Your task to perform on an android device: Open calendar and show me the fourth week of next month Image 0: 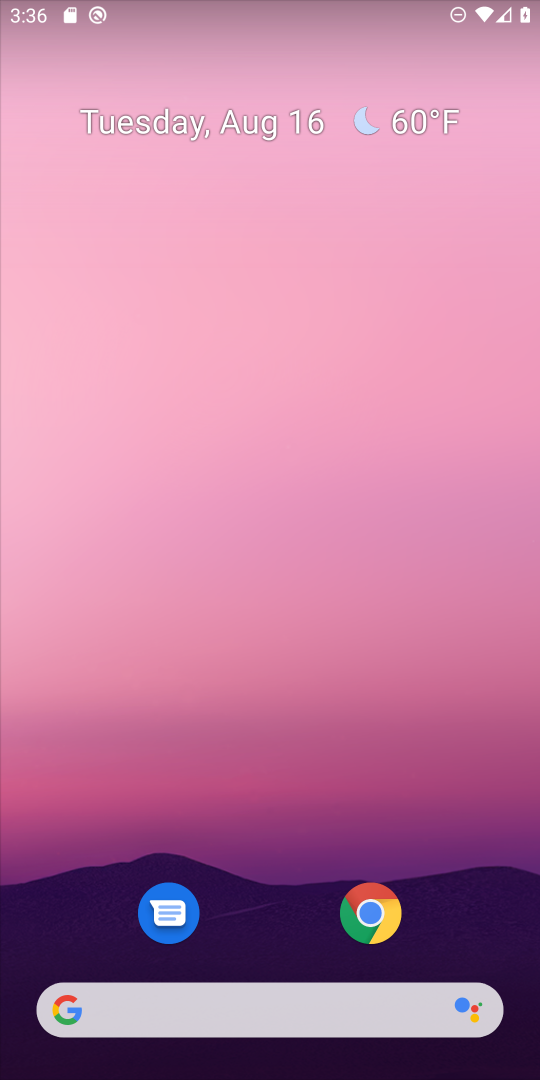
Step 0: drag from (466, 736) to (426, 186)
Your task to perform on an android device: Open calendar and show me the fourth week of next month Image 1: 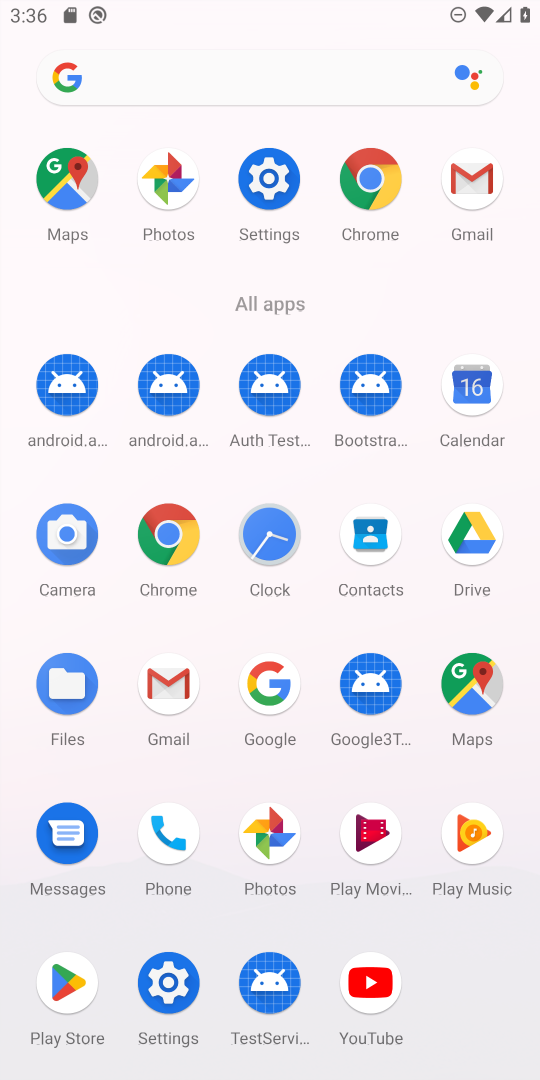
Step 1: click (475, 389)
Your task to perform on an android device: Open calendar and show me the fourth week of next month Image 2: 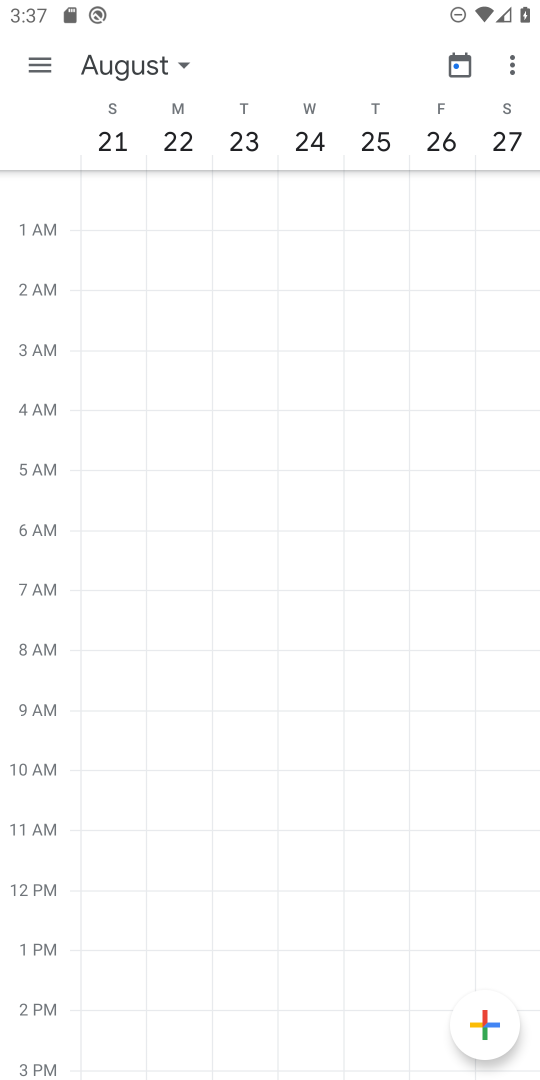
Step 2: click (41, 60)
Your task to perform on an android device: Open calendar and show me the fourth week of next month Image 3: 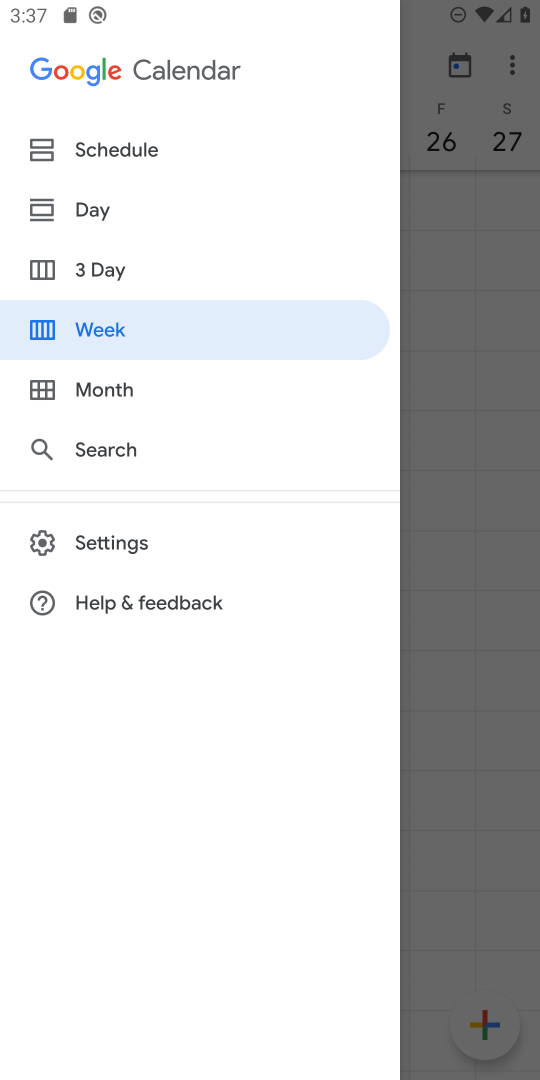
Step 3: click (141, 344)
Your task to perform on an android device: Open calendar and show me the fourth week of next month Image 4: 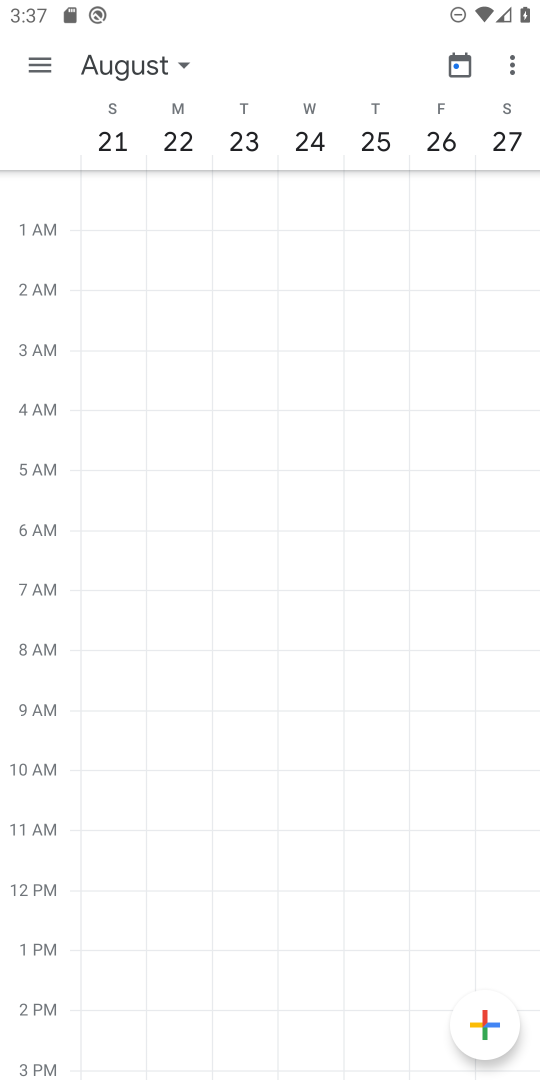
Step 4: click (187, 68)
Your task to perform on an android device: Open calendar and show me the fourth week of next month Image 5: 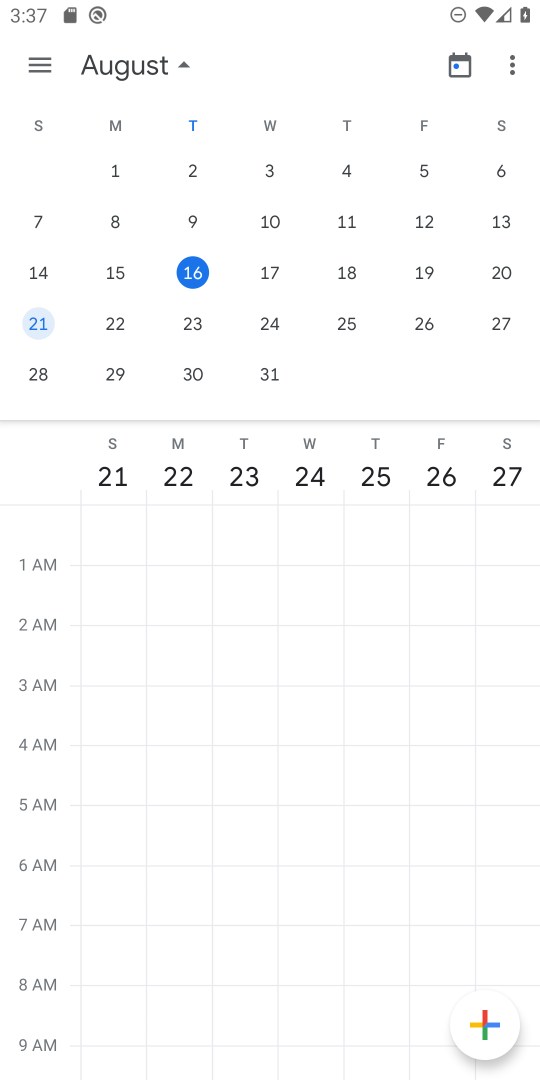
Step 5: drag from (502, 316) to (29, 255)
Your task to perform on an android device: Open calendar and show me the fourth week of next month Image 6: 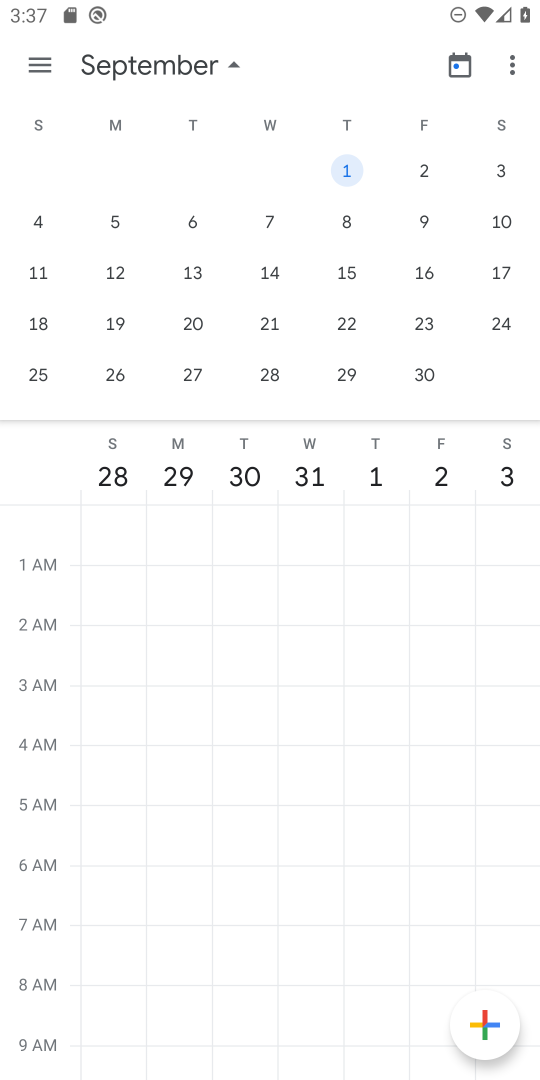
Step 6: click (37, 373)
Your task to perform on an android device: Open calendar and show me the fourth week of next month Image 7: 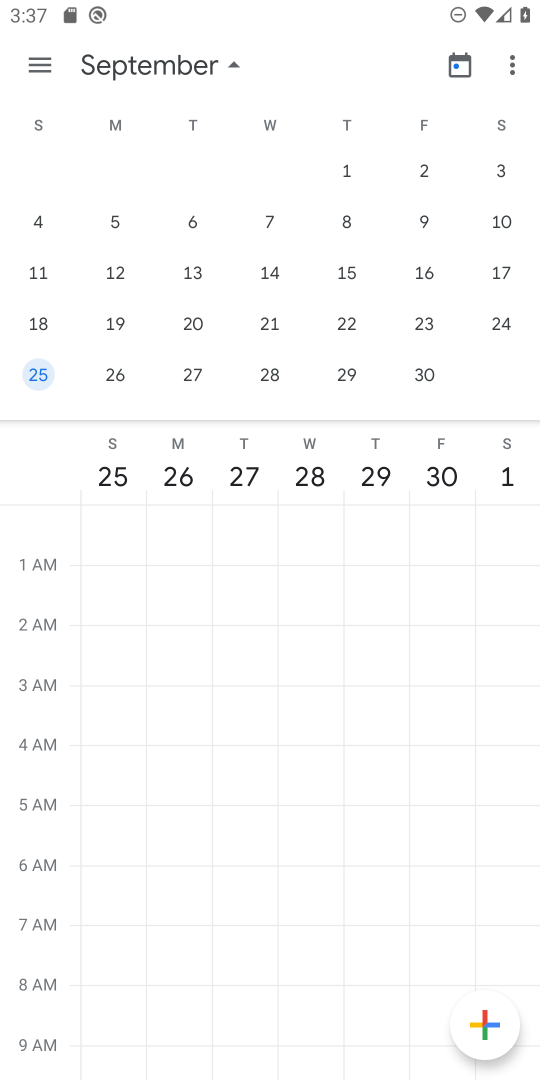
Step 7: task complete